Your task to perform on an android device: uninstall "eBay: The shopping marketplace" Image 0: 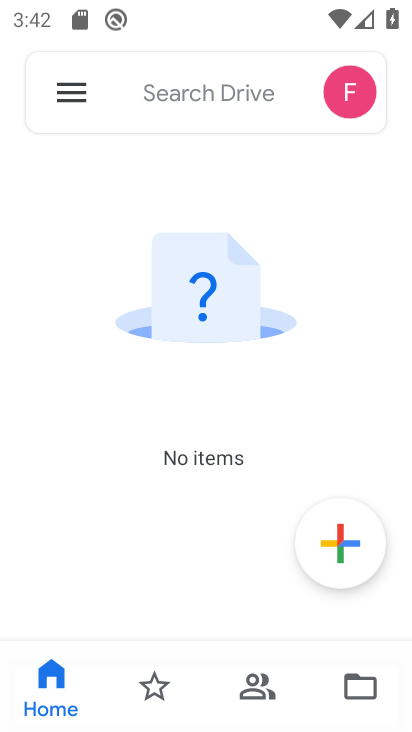
Step 0: press home button
Your task to perform on an android device: uninstall "eBay: The shopping marketplace" Image 1: 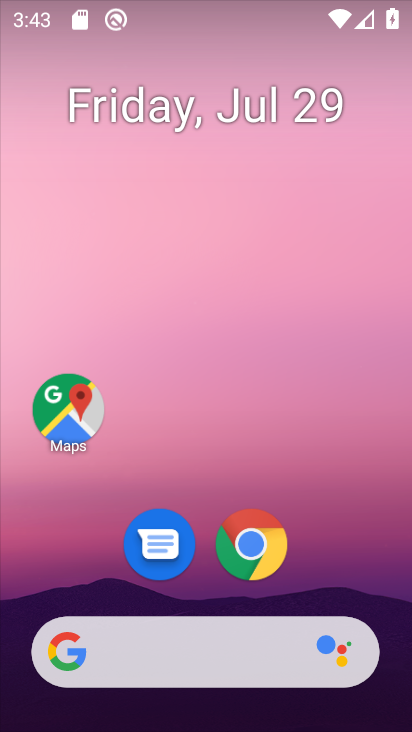
Step 1: drag from (218, 688) to (228, 93)
Your task to perform on an android device: uninstall "eBay: The shopping marketplace" Image 2: 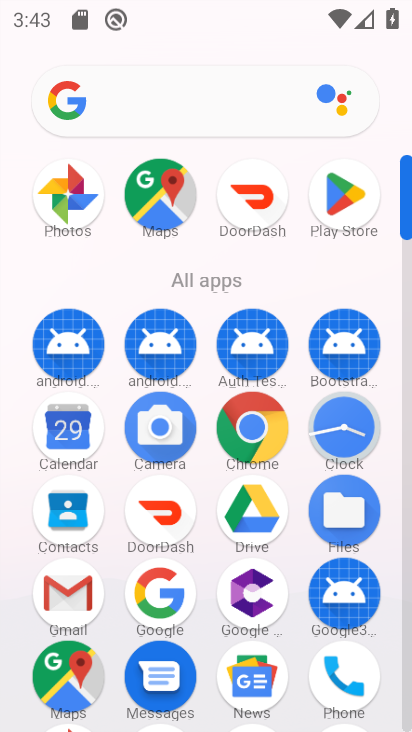
Step 2: click (352, 190)
Your task to perform on an android device: uninstall "eBay: The shopping marketplace" Image 3: 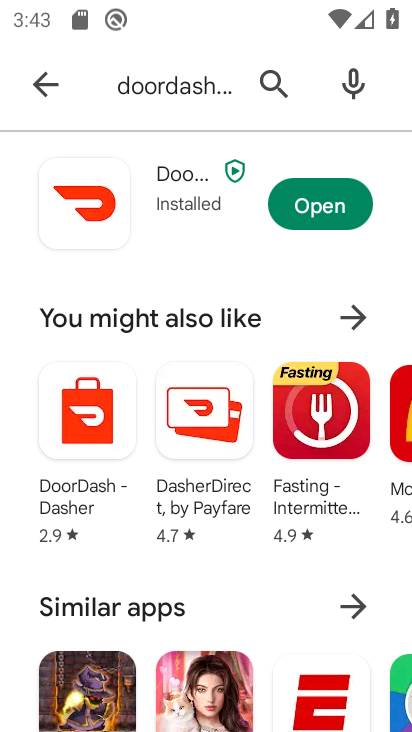
Step 3: click (352, 190)
Your task to perform on an android device: uninstall "eBay: The shopping marketplace" Image 4: 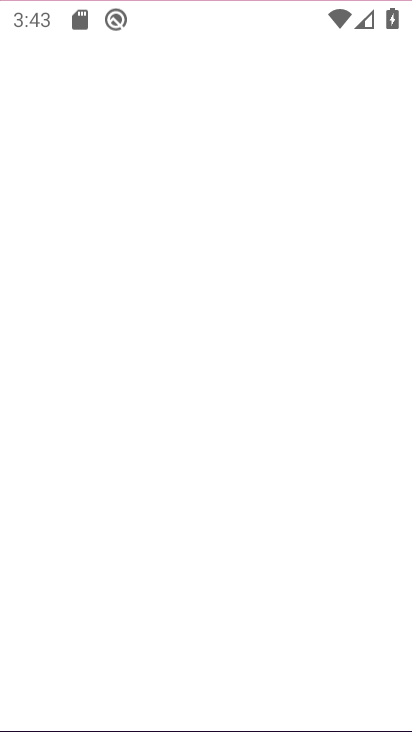
Step 4: click (278, 91)
Your task to perform on an android device: uninstall "eBay: The shopping marketplace" Image 5: 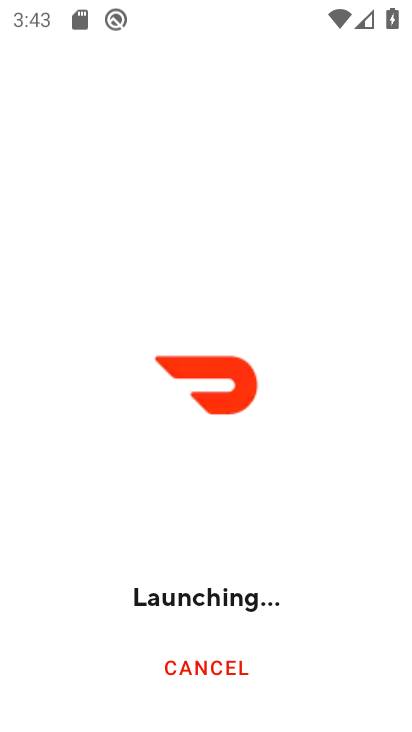
Step 5: press home button
Your task to perform on an android device: uninstall "eBay: The shopping marketplace" Image 6: 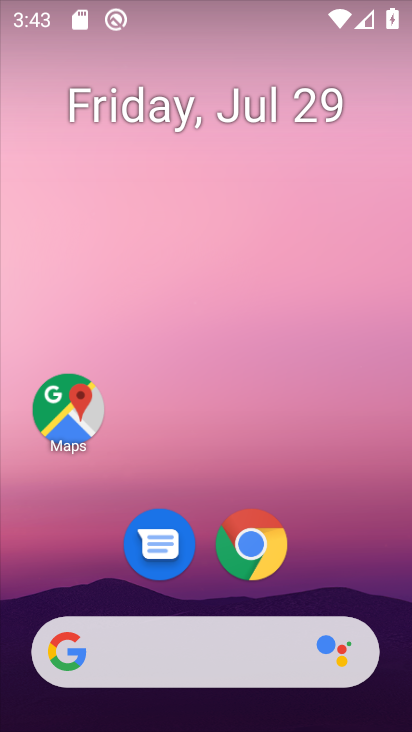
Step 6: drag from (213, 723) to (202, 251)
Your task to perform on an android device: uninstall "eBay: The shopping marketplace" Image 7: 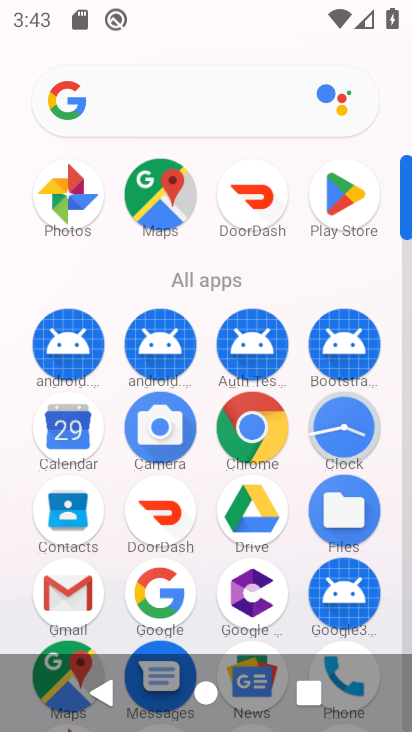
Step 7: click (344, 188)
Your task to perform on an android device: uninstall "eBay: The shopping marketplace" Image 8: 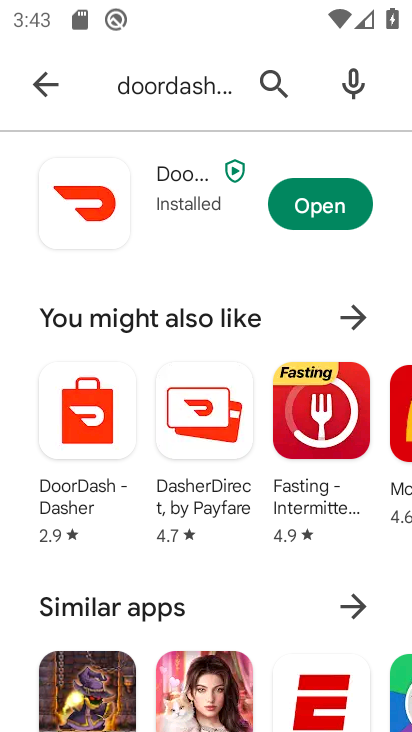
Step 8: click (266, 81)
Your task to perform on an android device: uninstall "eBay: The shopping marketplace" Image 9: 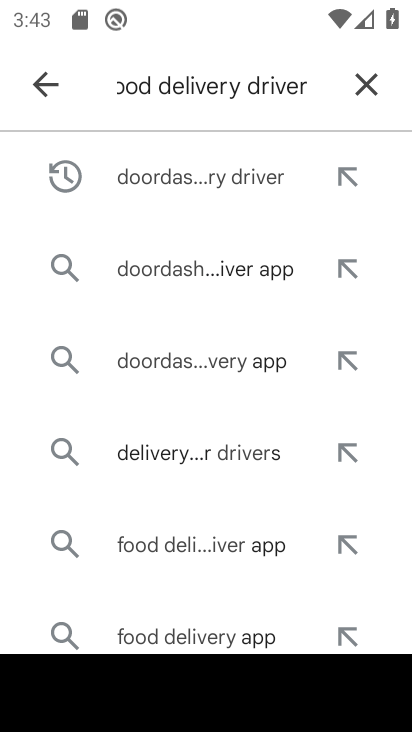
Step 9: click (379, 82)
Your task to perform on an android device: uninstall "eBay: The shopping marketplace" Image 10: 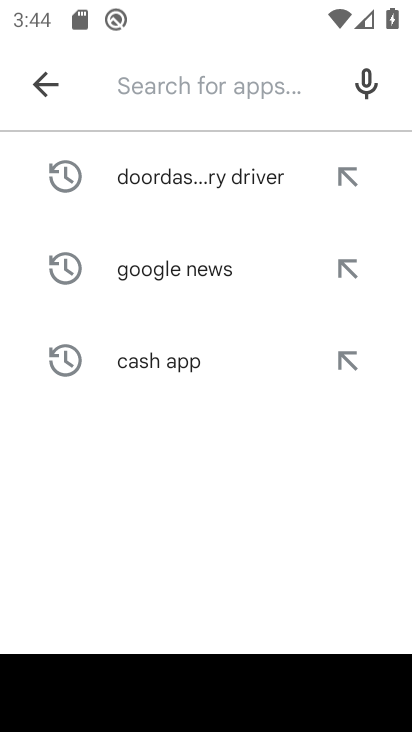
Step 10: type "The shopping marketplace"
Your task to perform on an android device: uninstall "eBay: The shopping marketplace" Image 11: 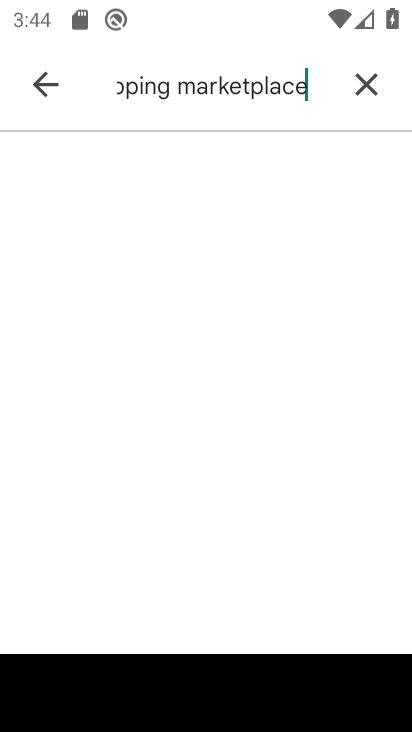
Step 11: task complete